Your task to perform on an android device: Open Reddit.com Image 0: 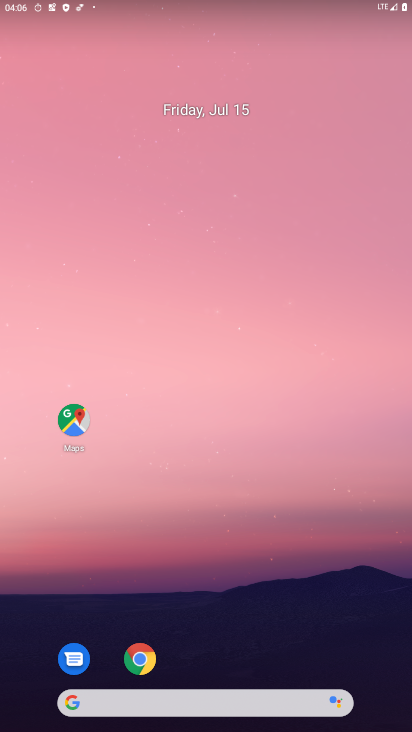
Step 0: click (139, 652)
Your task to perform on an android device: Open Reddit.com Image 1: 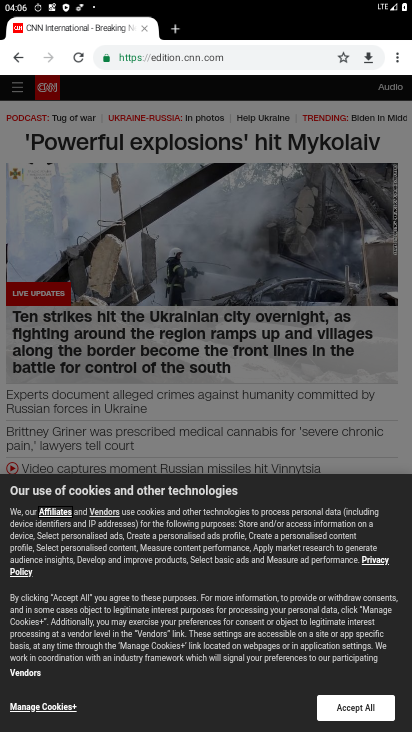
Step 1: click (187, 50)
Your task to perform on an android device: Open Reddit.com Image 2: 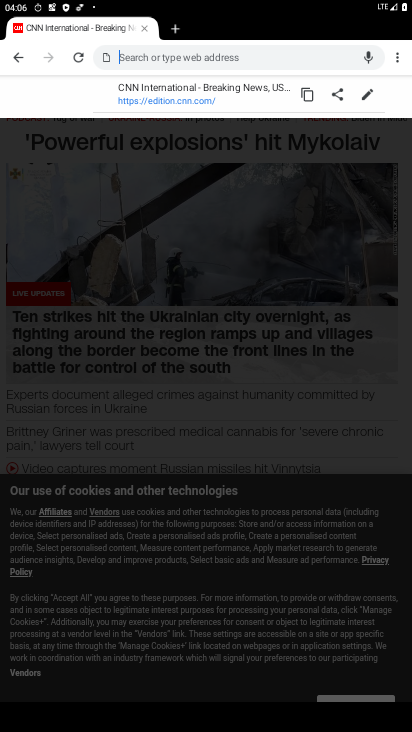
Step 2: type "Reddit.com"
Your task to perform on an android device: Open Reddit.com Image 3: 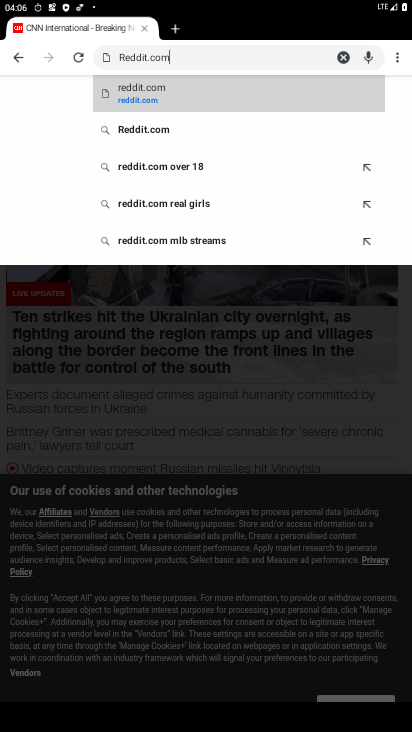
Step 3: click (183, 97)
Your task to perform on an android device: Open Reddit.com Image 4: 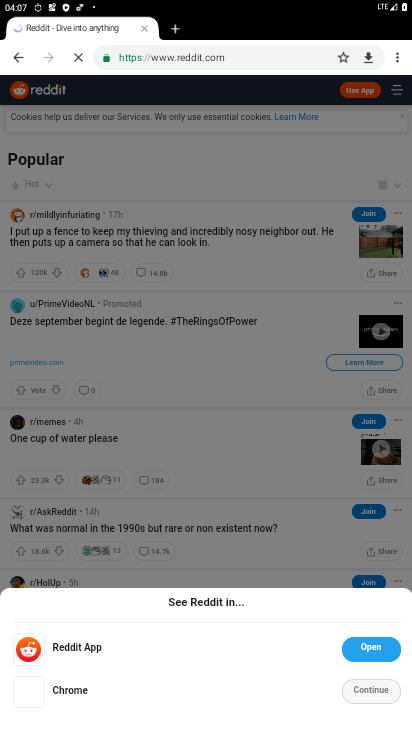
Step 4: task complete